Your task to perform on an android device: Open ESPN.com Image 0: 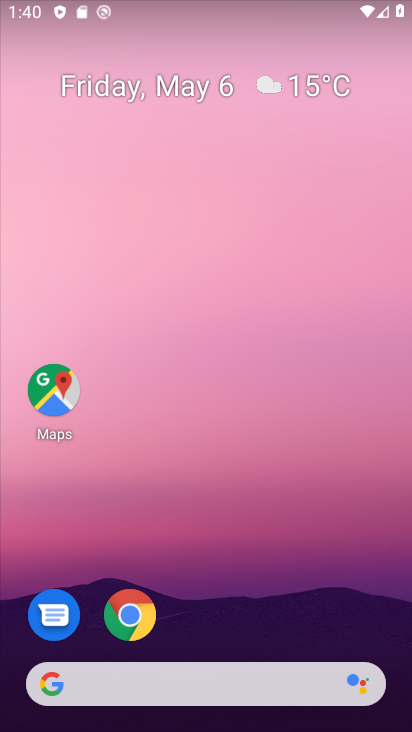
Step 0: click (142, 617)
Your task to perform on an android device: Open ESPN.com Image 1: 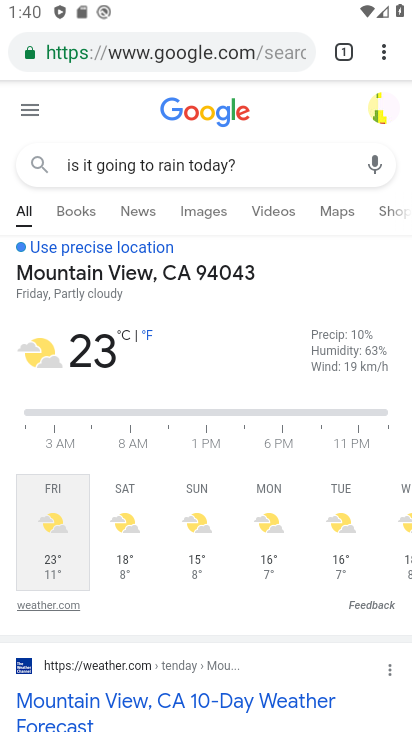
Step 1: click (235, 50)
Your task to perform on an android device: Open ESPN.com Image 2: 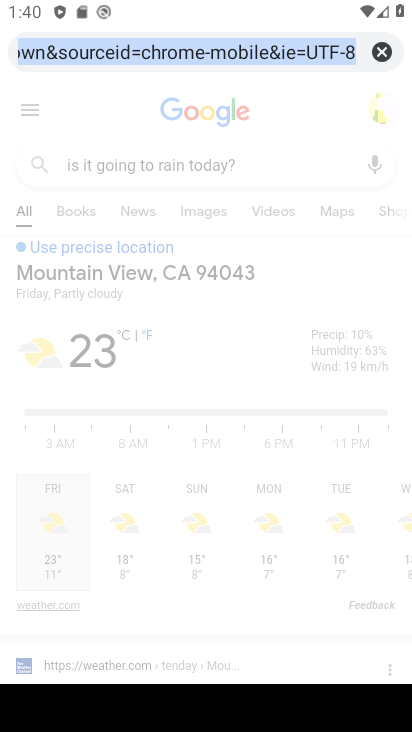
Step 2: type "ESPN.com"
Your task to perform on an android device: Open ESPN.com Image 3: 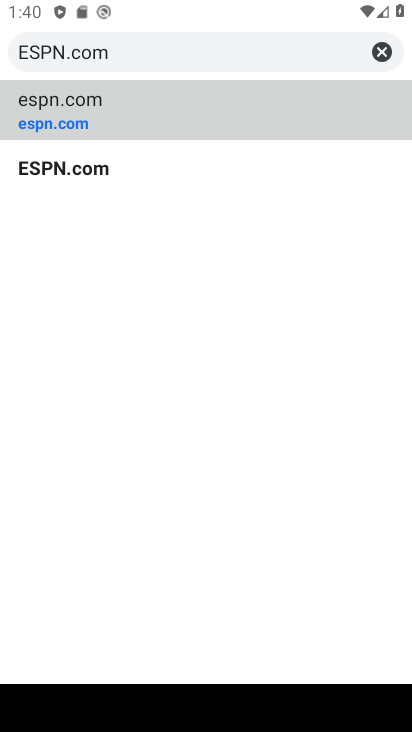
Step 3: click (53, 108)
Your task to perform on an android device: Open ESPN.com Image 4: 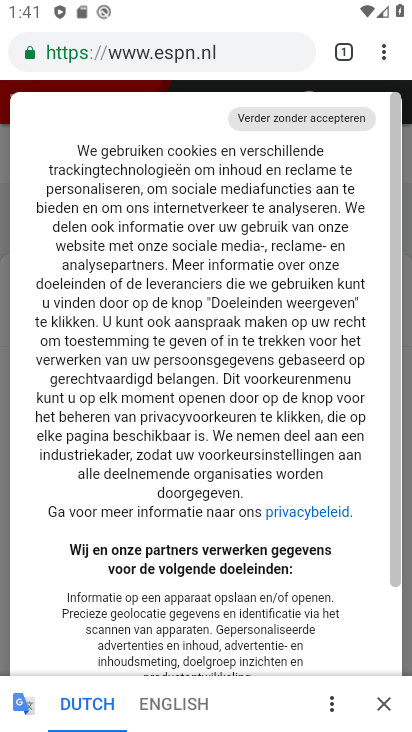
Step 4: press back button
Your task to perform on an android device: Open ESPN.com Image 5: 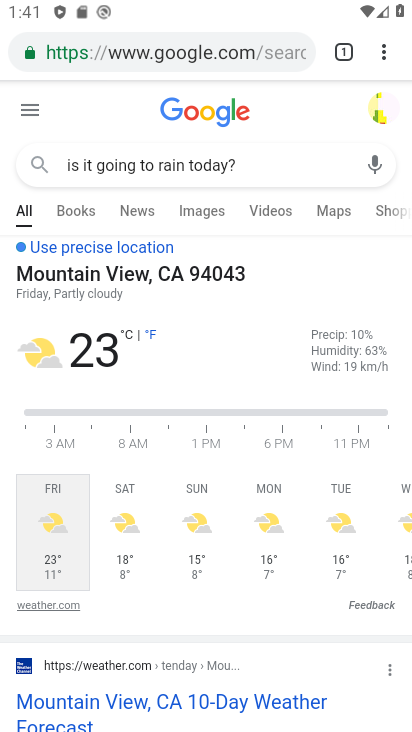
Step 5: click (240, 55)
Your task to perform on an android device: Open ESPN.com Image 6: 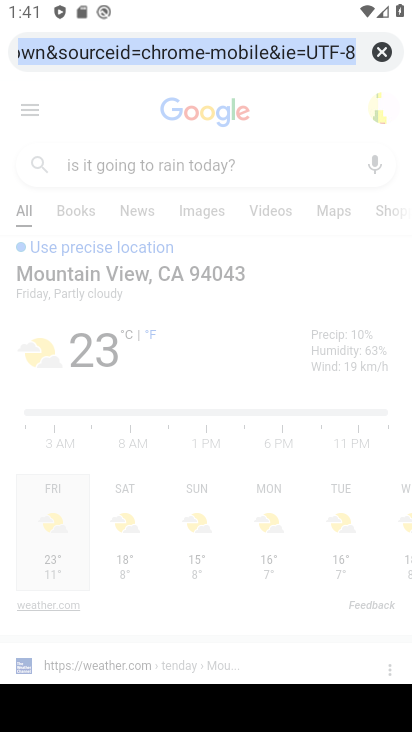
Step 6: type "ESPN.com"
Your task to perform on an android device: Open ESPN.com Image 7: 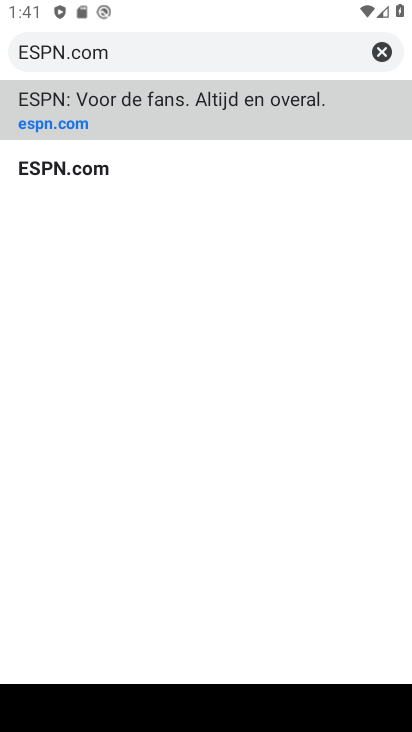
Step 7: click (90, 124)
Your task to perform on an android device: Open ESPN.com Image 8: 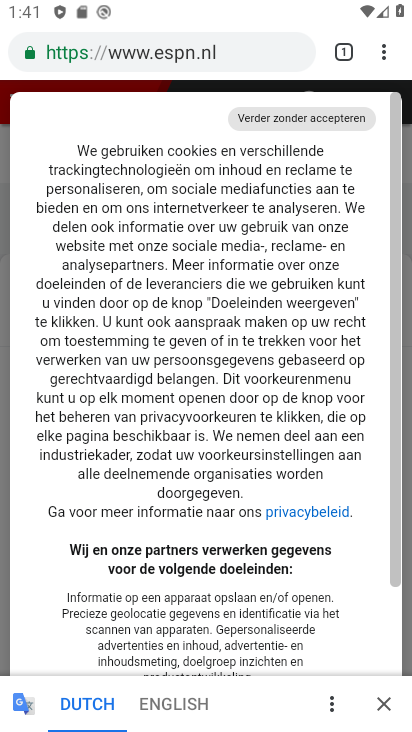
Step 8: task complete